Your task to perform on an android device: Open the phone app and click the voicemail tab. Image 0: 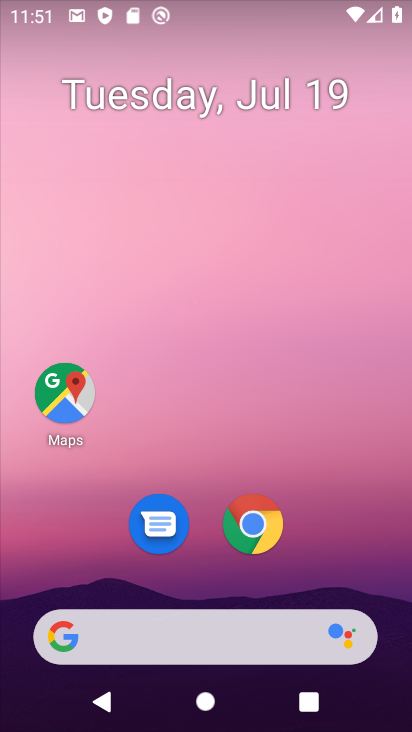
Step 0: drag from (187, 639) to (228, 190)
Your task to perform on an android device: Open the phone app and click the voicemail tab. Image 1: 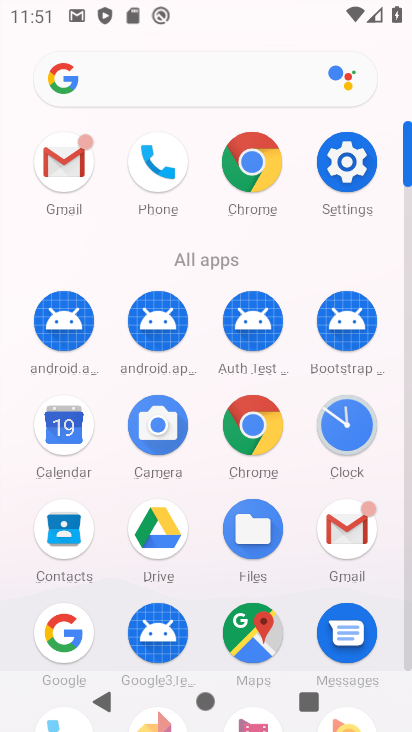
Step 1: click (161, 160)
Your task to perform on an android device: Open the phone app and click the voicemail tab. Image 2: 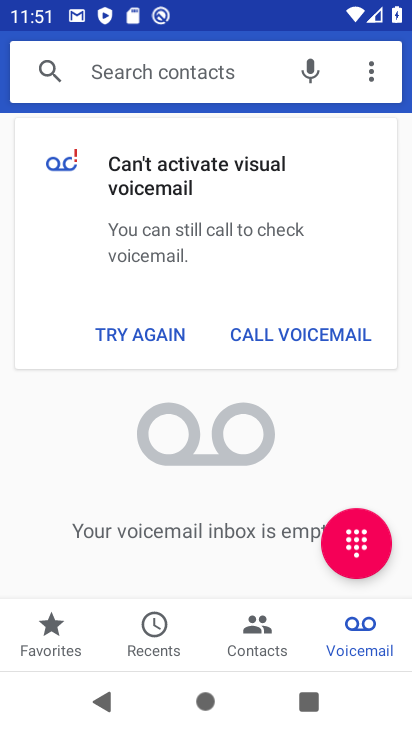
Step 2: task complete